Your task to perform on an android device: turn on translation in the chrome app Image 0: 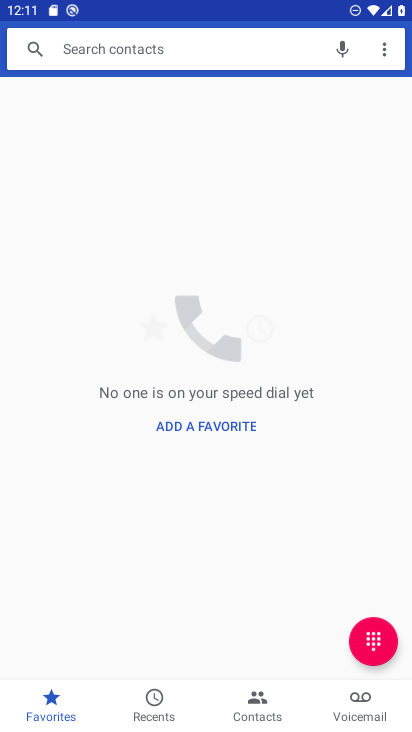
Step 0: press back button
Your task to perform on an android device: turn on translation in the chrome app Image 1: 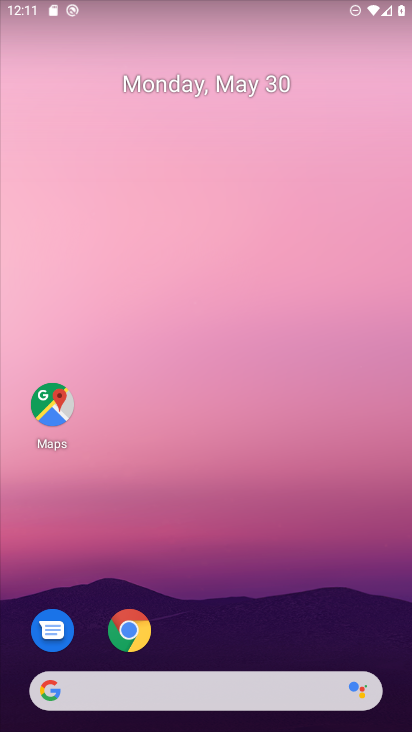
Step 1: click (244, 38)
Your task to perform on an android device: turn on translation in the chrome app Image 2: 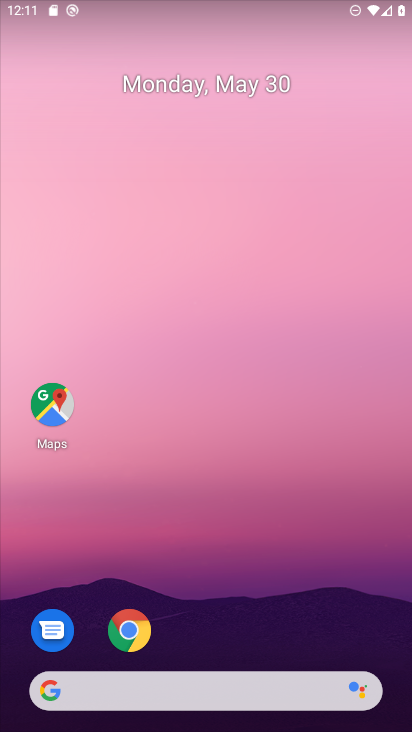
Step 2: drag from (250, 614) to (175, 14)
Your task to perform on an android device: turn on translation in the chrome app Image 3: 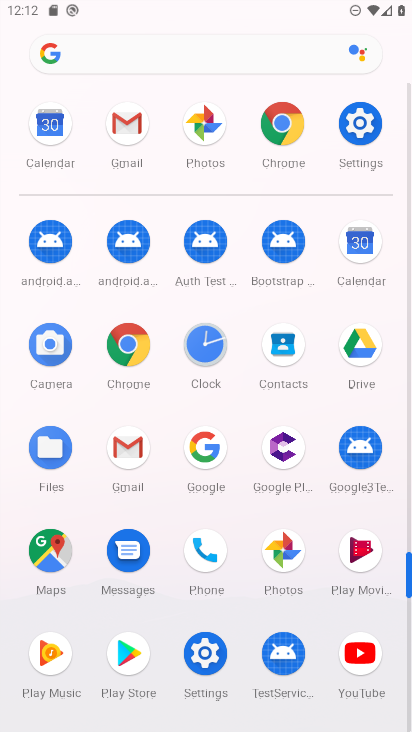
Step 3: click (280, 122)
Your task to perform on an android device: turn on translation in the chrome app Image 4: 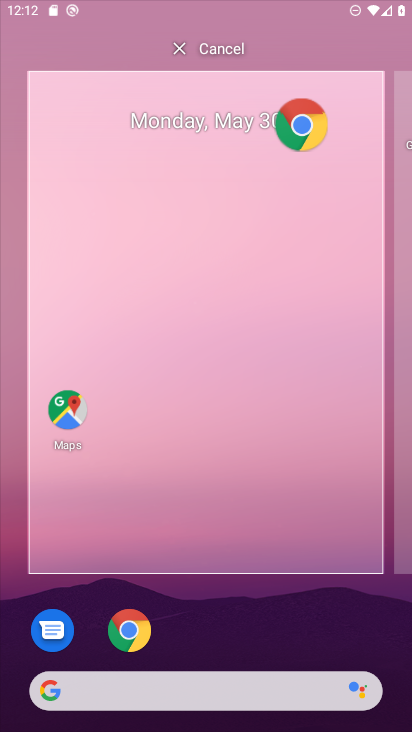
Step 4: click (300, 122)
Your task to perform on an android device: turn on translation in the chrome app Image 5: 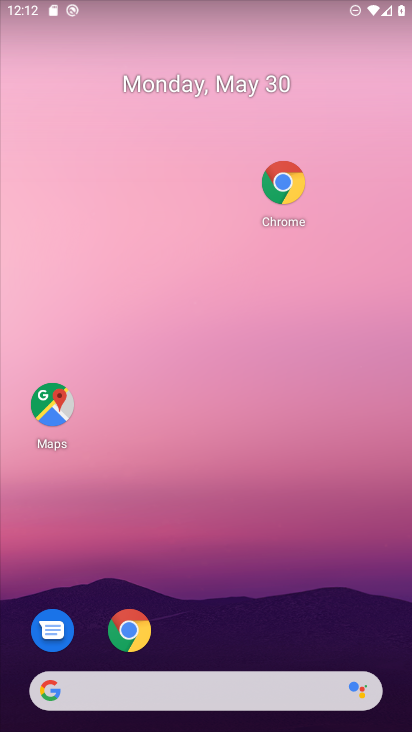
Step 5: drag from (301, 663) to (204, 71)
Your task to perform on an android device: turn on translation in the chrome app Image 6: 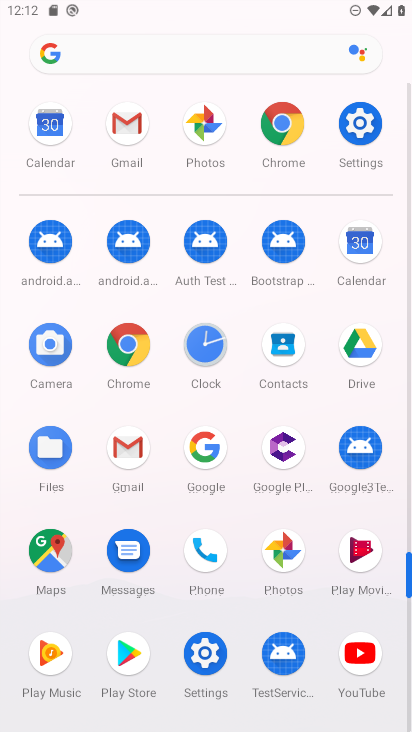
Step 6: drag from (284, 535) to (128, 78)
Your task to perform on an android device: turn on translation in the chrome app Image 7: 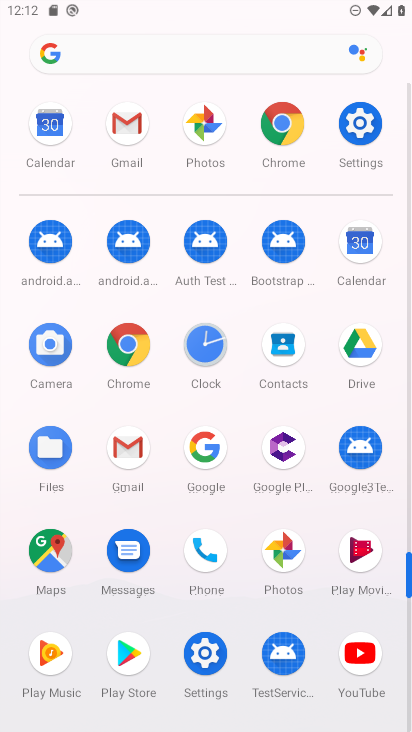
Step 7: click (286, 118)
Your task to perform on an android device: turn on translation in the chrome app Image 8: 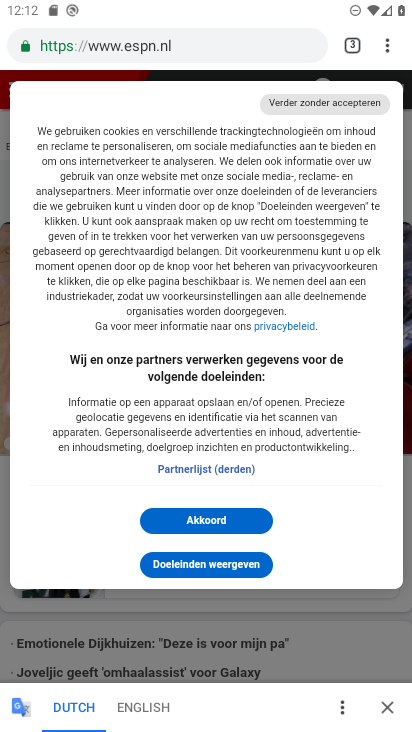
Step 8: click (386, 49)
Your task to perform on an android device: turn on translation in the chrome app Image 9: 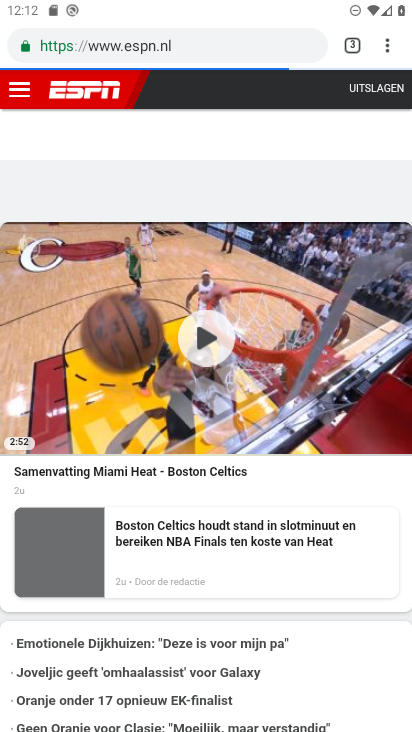
Step 9: drag from (387, 47) to (220, 550)
Your task to perform on an android device: turn on translation in the chrome app Image 10: 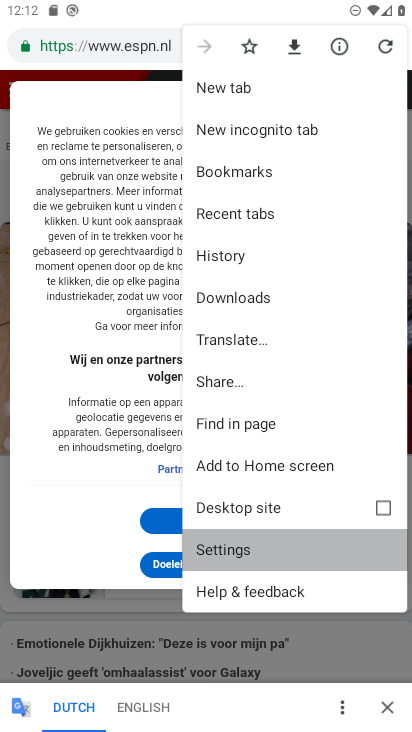
Step 10: click (229, 547)
Your task to perform on an android device: turn on translation in the chrome app Image 11: 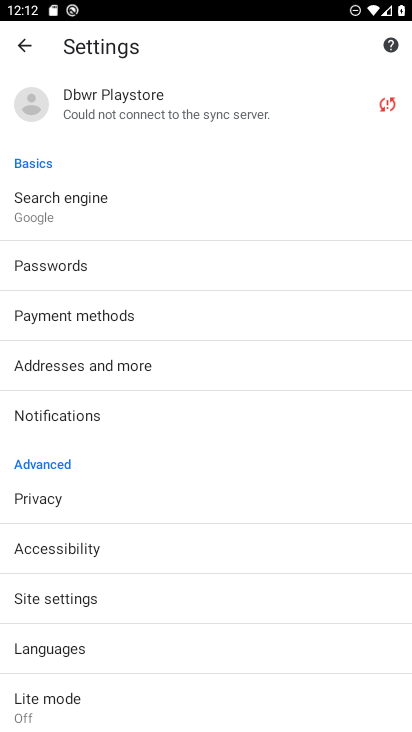
Step 11: click (50, 646)
Your task to perform on an android device: turn on translation in the chrome app Image 12: 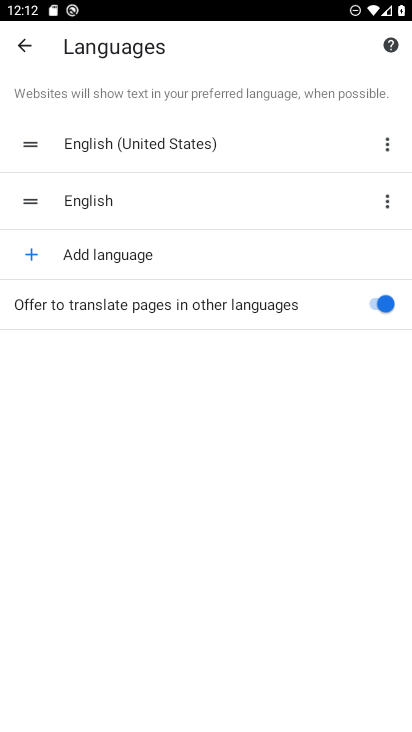
Step 12: click (378, 315)
Your task to perform on an android device: turn on translation in the chrome app Image 13: 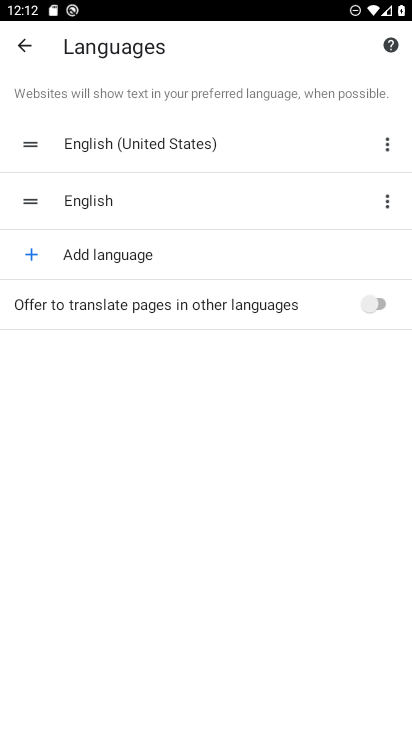
Step 13: task complete